Your task to perform on an android device: Open settings Image 0: 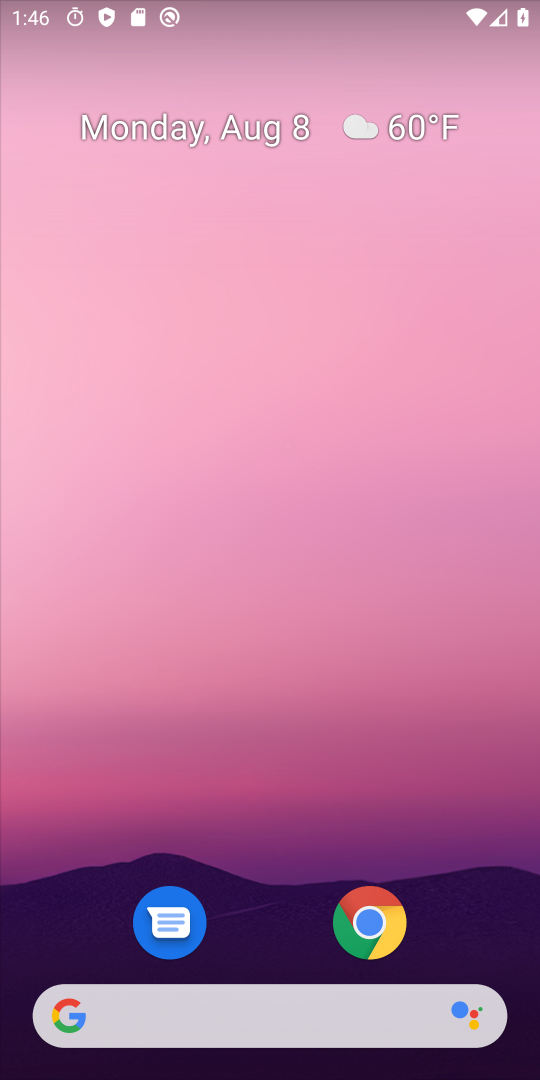
Step 0: drag from (437, 682) to (151, 53)
Your task to perform on an android device: Open settings Image 1: 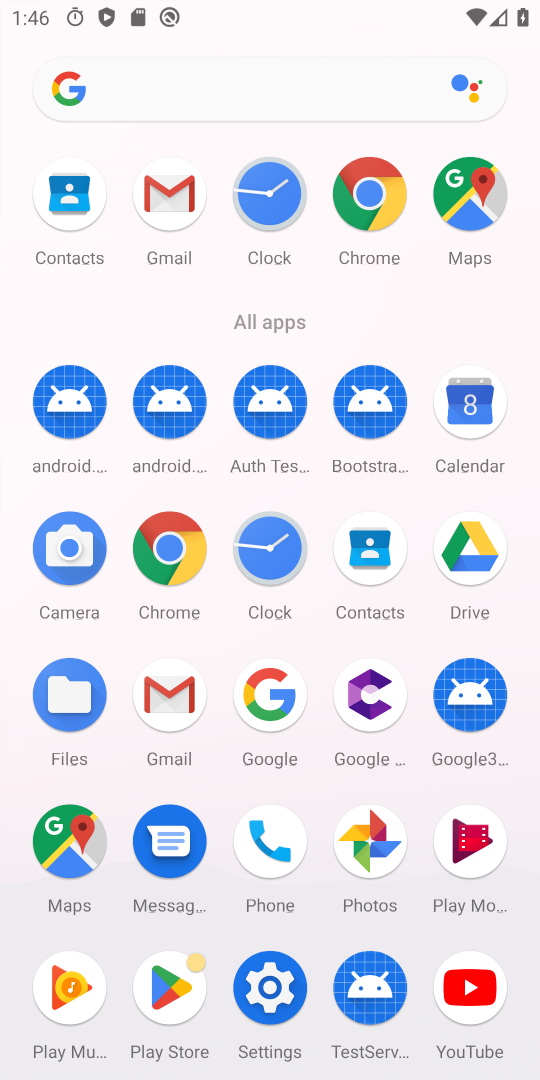
Step 1: click (270, 981)
Your task to perform on an android device: Open settings Image 2: 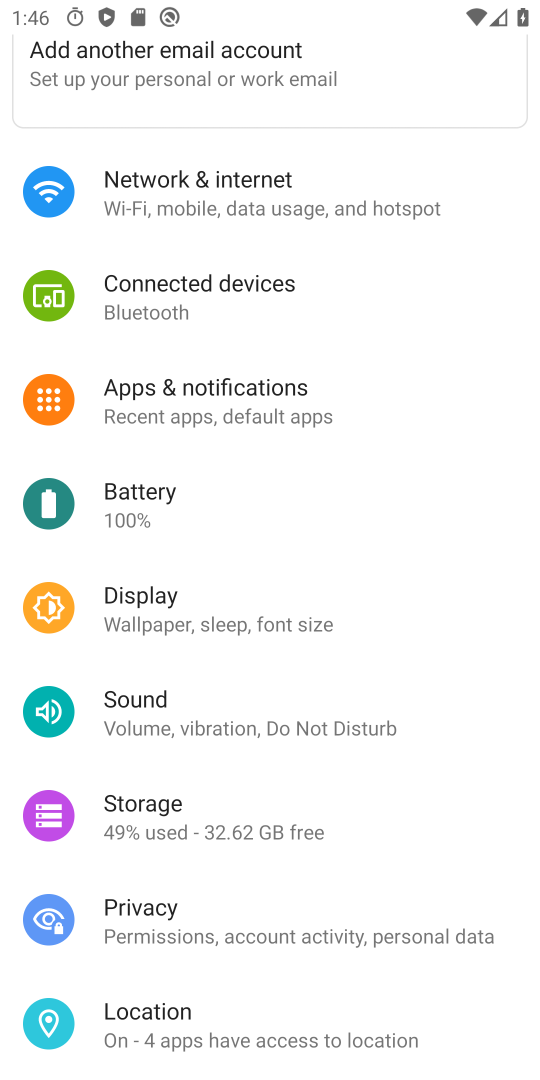
Step 2: task complete